Your task to perform on an android device: Go to privacy settings Image 0: 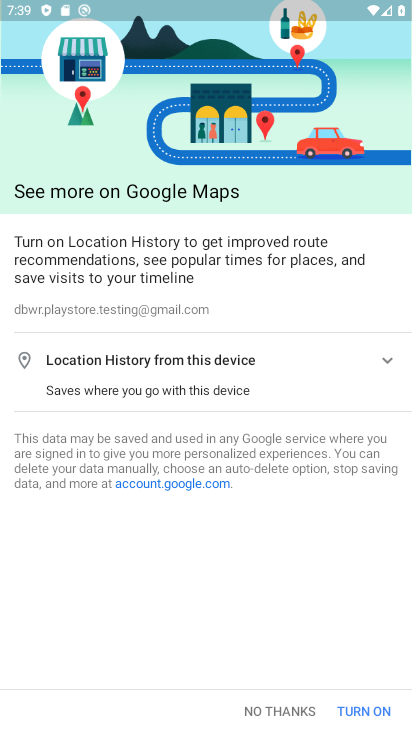
Step 0: press home button
Your task to perform on an android device: Go to privacy settings Image 1: 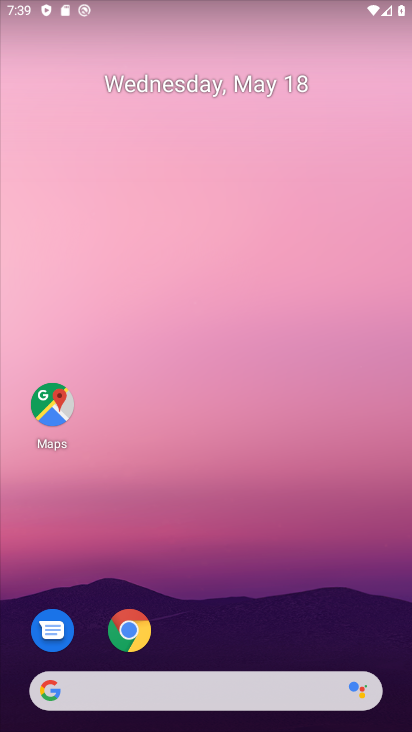
Step 1: drag from (247, 534) to (330, 57)
Your task to perform on an android device: Go to privacy settings Image 2: 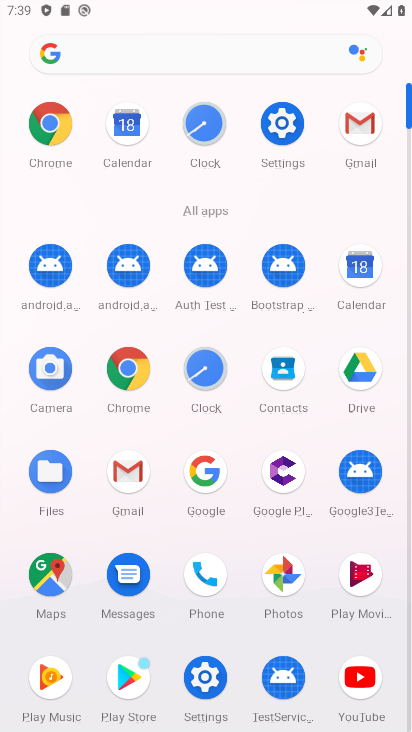
Step 2: click (292, 132)
Your task to perform on an android device: Go to privacy settings Image 3: 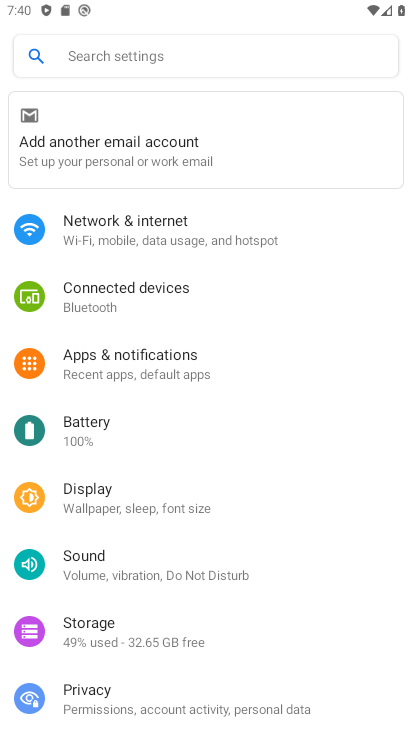
Step 3: drag from (131, 670) to (119, 315)
Your task to perform on an android device: Go to privacy settings Image 4: 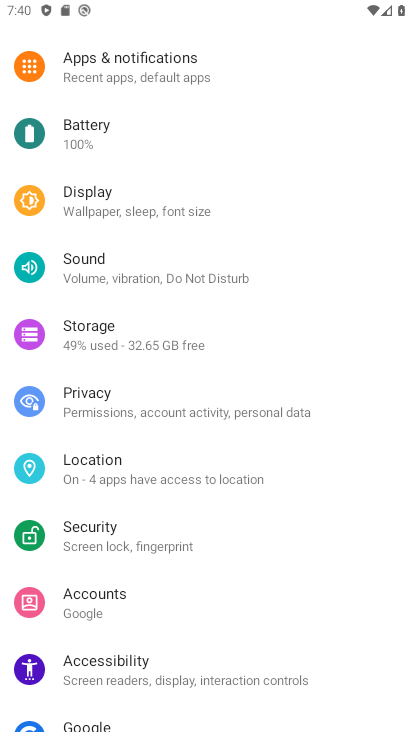
Step 4: drag from (162, 583) to (199, 244)
Your task to perform on an android device: Go to privacy settings Image 5: 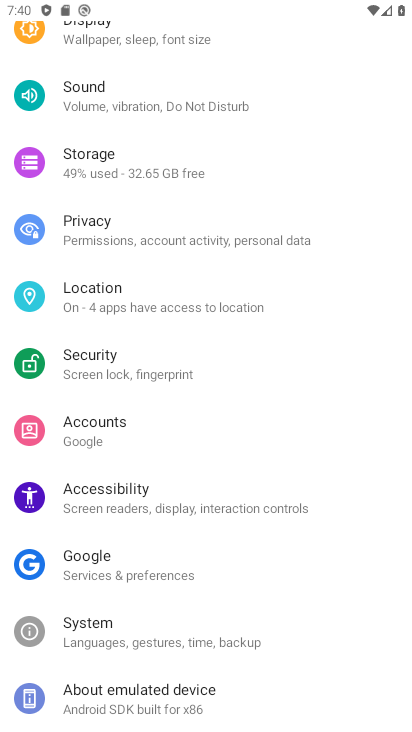
Step 5: drag from (201, 249) to (165, 582)
Your task to perform on an android device: Go to privacy settings Image 6: 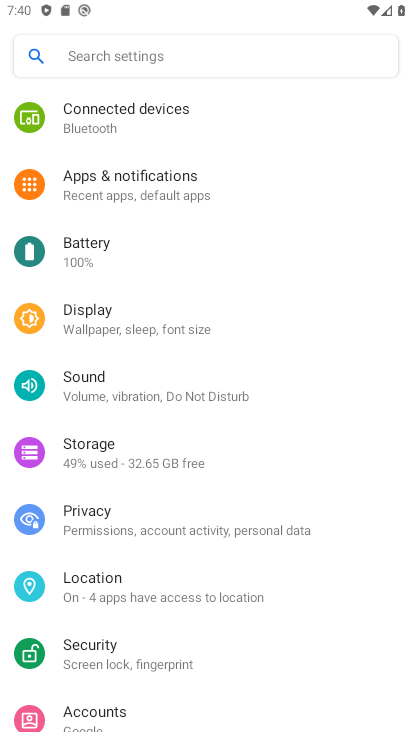
Step 6: click (157, 522)
Your task to perform on an android device: Go to privacy settings Image 7: 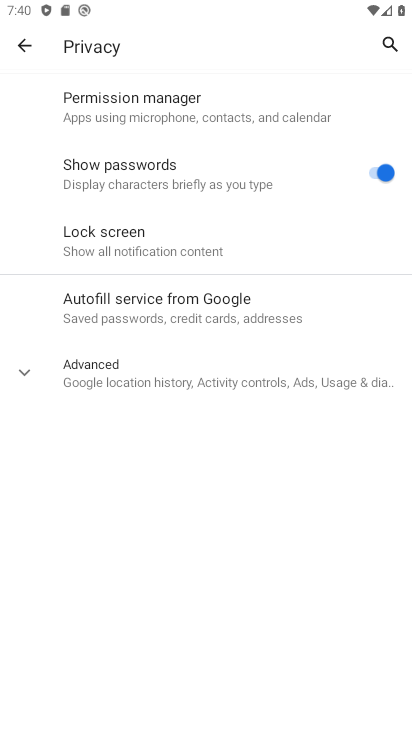
Step 7: task complete